Your task to perform on an android device: change the clock display to digital Image 0: 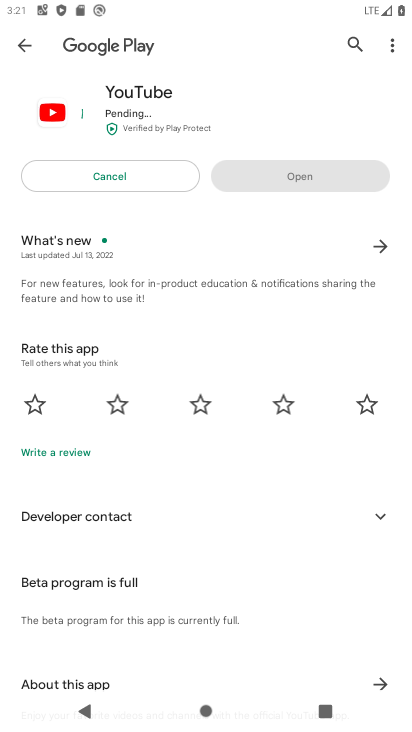
Step 0: press home button
Your task to perform on an android device: change the clock display to digital Image 1: 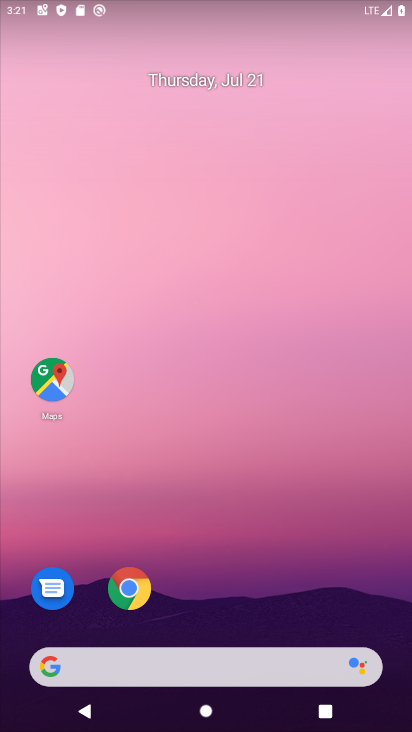
Step 1: drag from (275, 587) to (278, 0)
Your task to perform on an android device: change the clock display to digital Image 2: 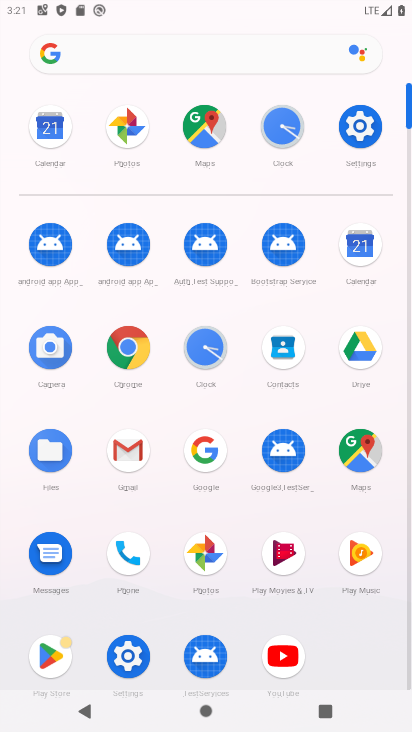
Step 2: click (204, 339)
Your task to perform on an android device: change the clock display to digital Image 3: 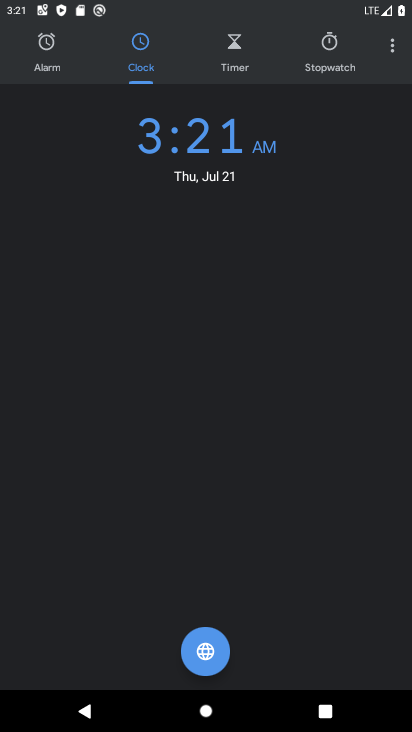
Step 3: click (392, 52)
Your task to perform on an android device: change the clock display to digital Image 4: 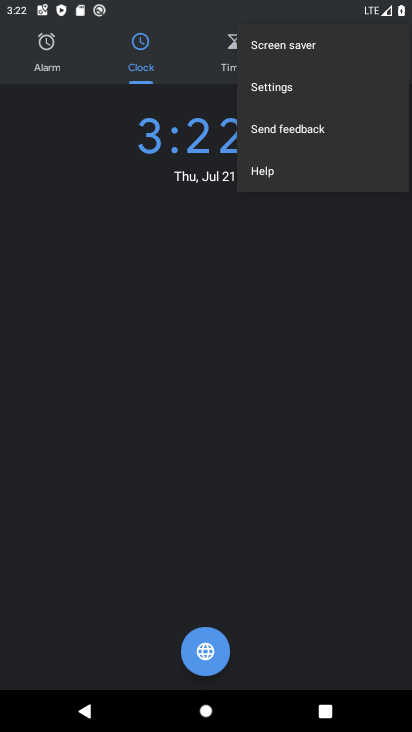
Step 4: click (283, 83)
Your task to perform on an android device: change the clock display to digital Image 5: 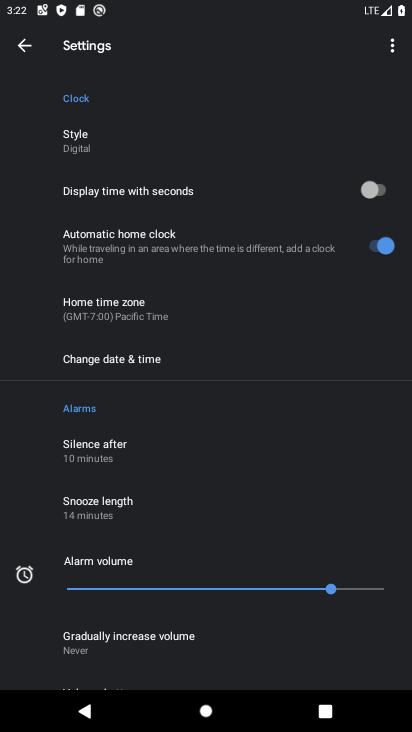
Step 5: click (113, 154)
Your task to perform on an android device: change the clock display to digital Image 6: 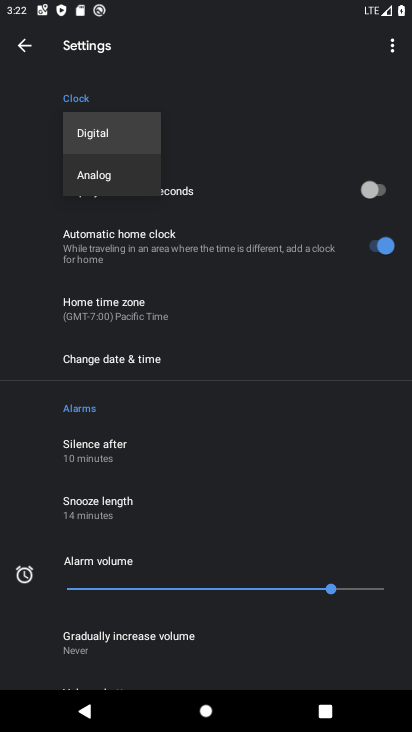
Step 6: click (148, 128)
Your task to perform on an android device: change the clock display to digital Image 7: 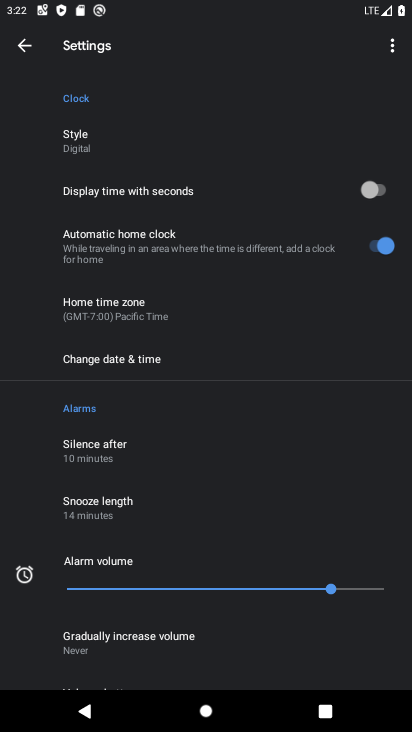
Step 7: task complete